Your task to perform on an android device: turn on wifi Image 0: 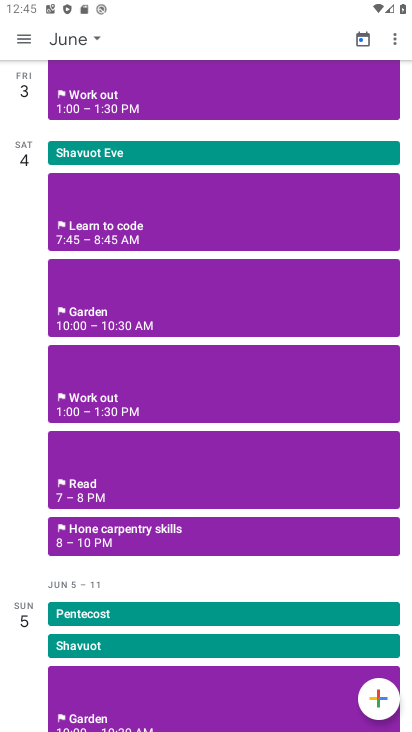
Step 0: press home button
Your task to perform on an android device: turn on wifi Image 1: 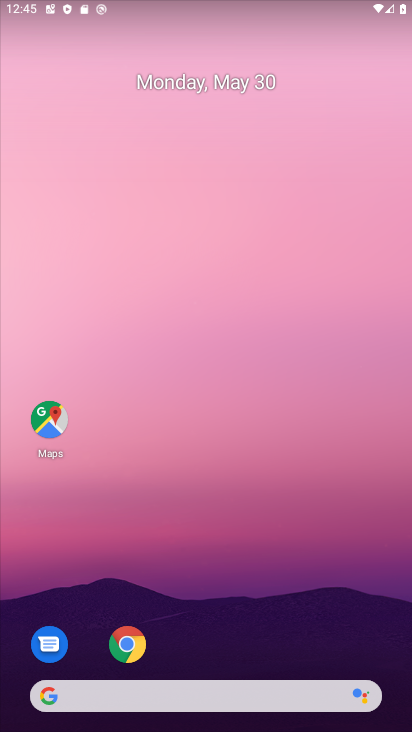
Step 1: drag from (361, 611) to (329, 217)
Your task to perform on an android device: turn on wifi Image 2: 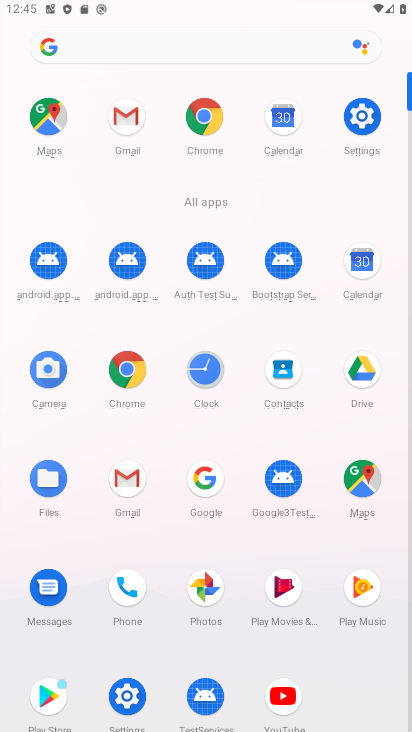
Step 2: click (360, 130)
Your task to perform on an android device: turn on wifi Image 3: 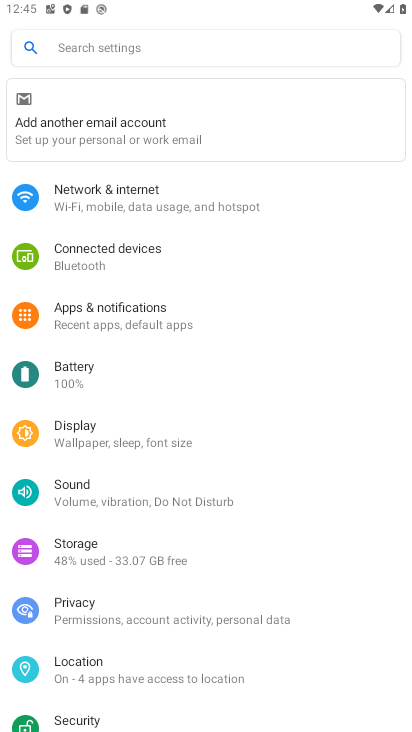
Step 3: click (220, 203)
Your task to perform on an android device: turn on wifi Image 4: 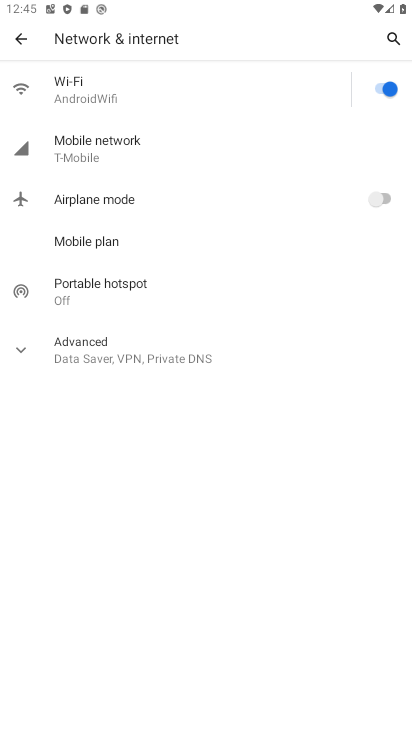
Step 4: task complete